Your task to perform on an android device: turn smart compose on in the gmail app Image 0: 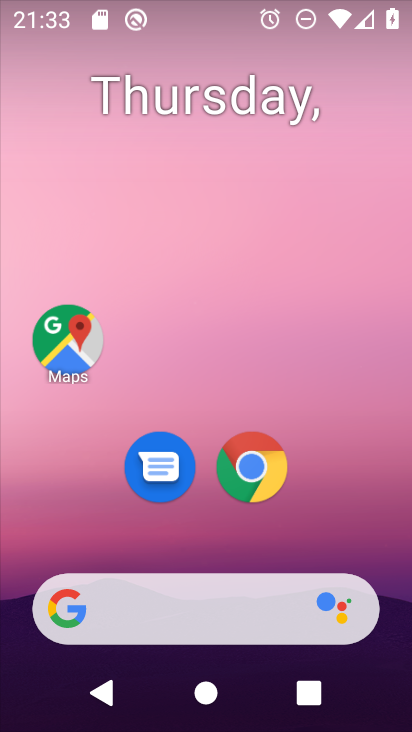
Step 0: drag from (322, 434) to (324, 150)
Your task to perform on an android device: turn smart compose on in the gmail app Image 1: 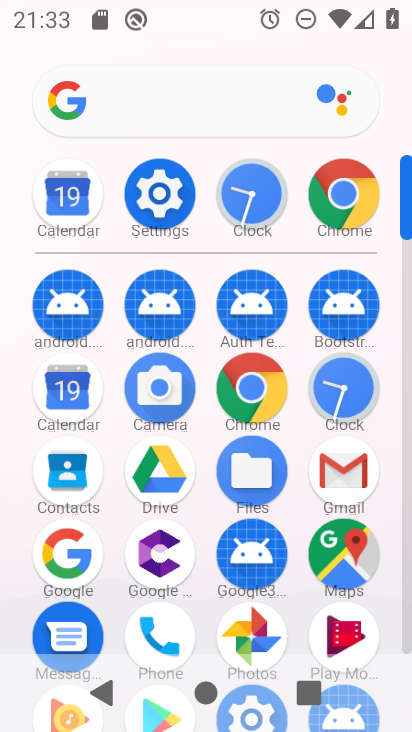
Step 1: click (348, 467)
Your task to perform on an android device: turn smart compose on in the gmail app Image 2: 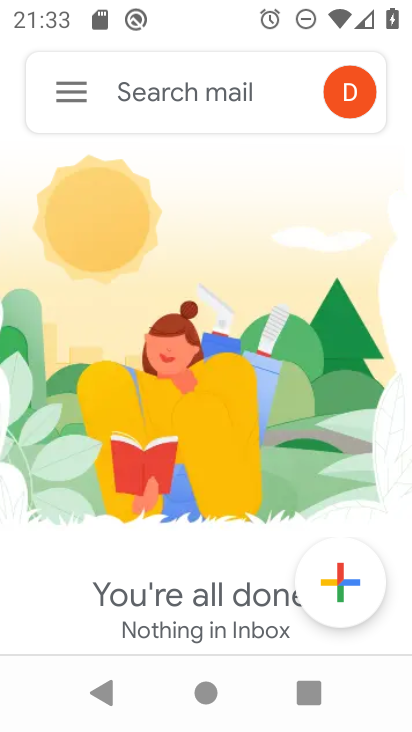
Step 2: click (59, 95)
Your task to perform on an android device: turn smart compose on in the gmail app Image 3: 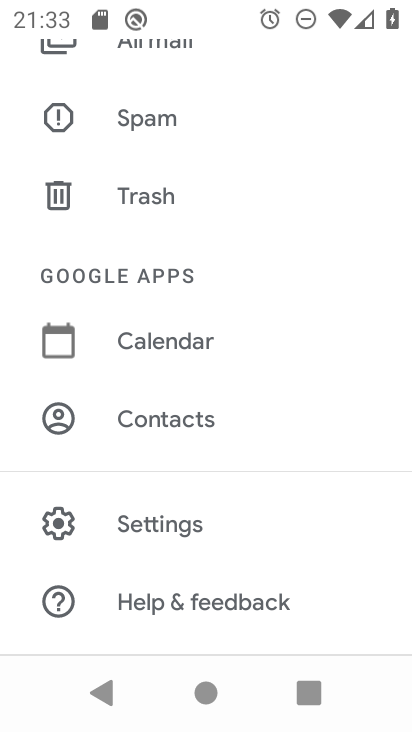
Step 3: click (171, 515)
Your task to perform on an android device: turn smart compose on in the gmail app Image 4: 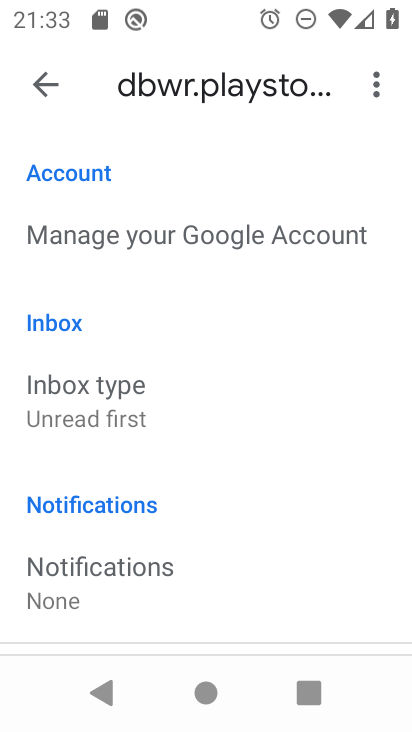
Step 4: task complete